Your task to perform on an android device: What's the weather like in Mexico City? Image 0: 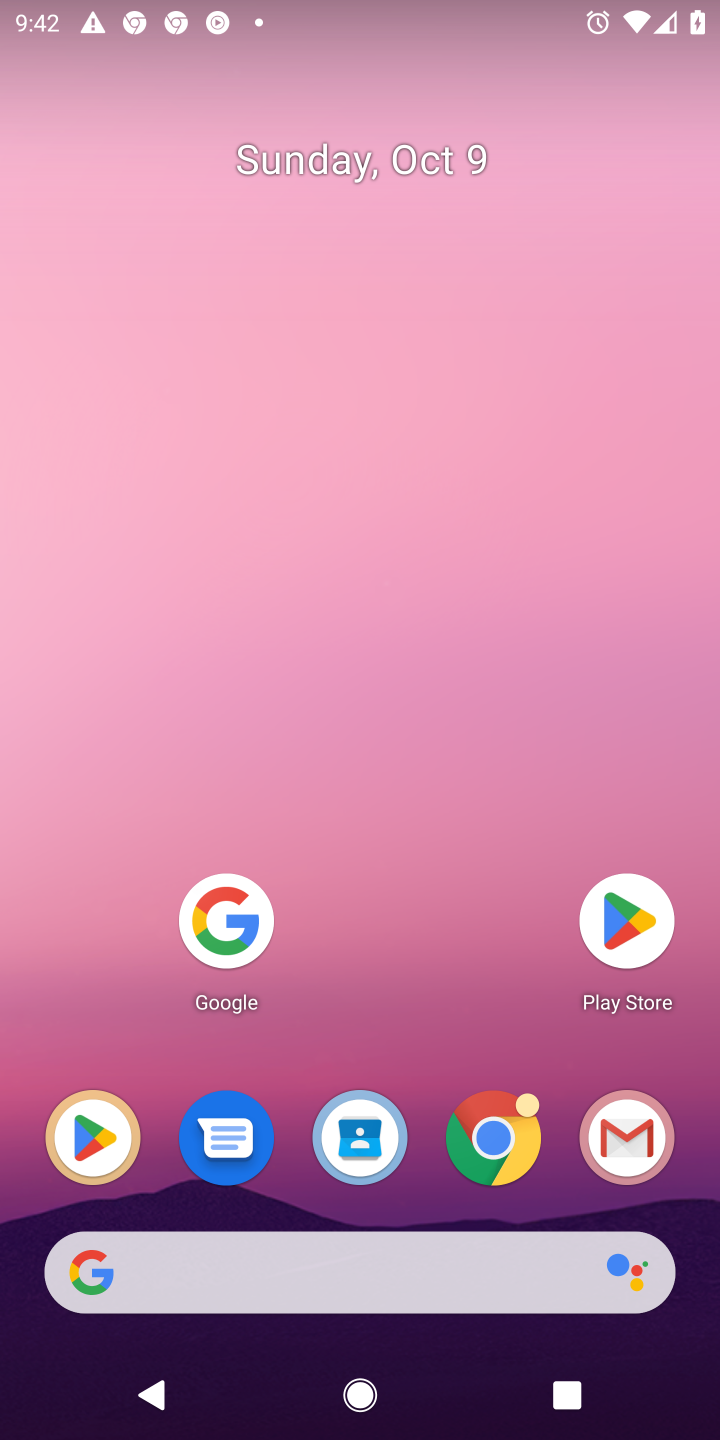
Step 0: click (237, 911)
Your task to perform on an android device: What's the weather like in Mexico City? Image 1: 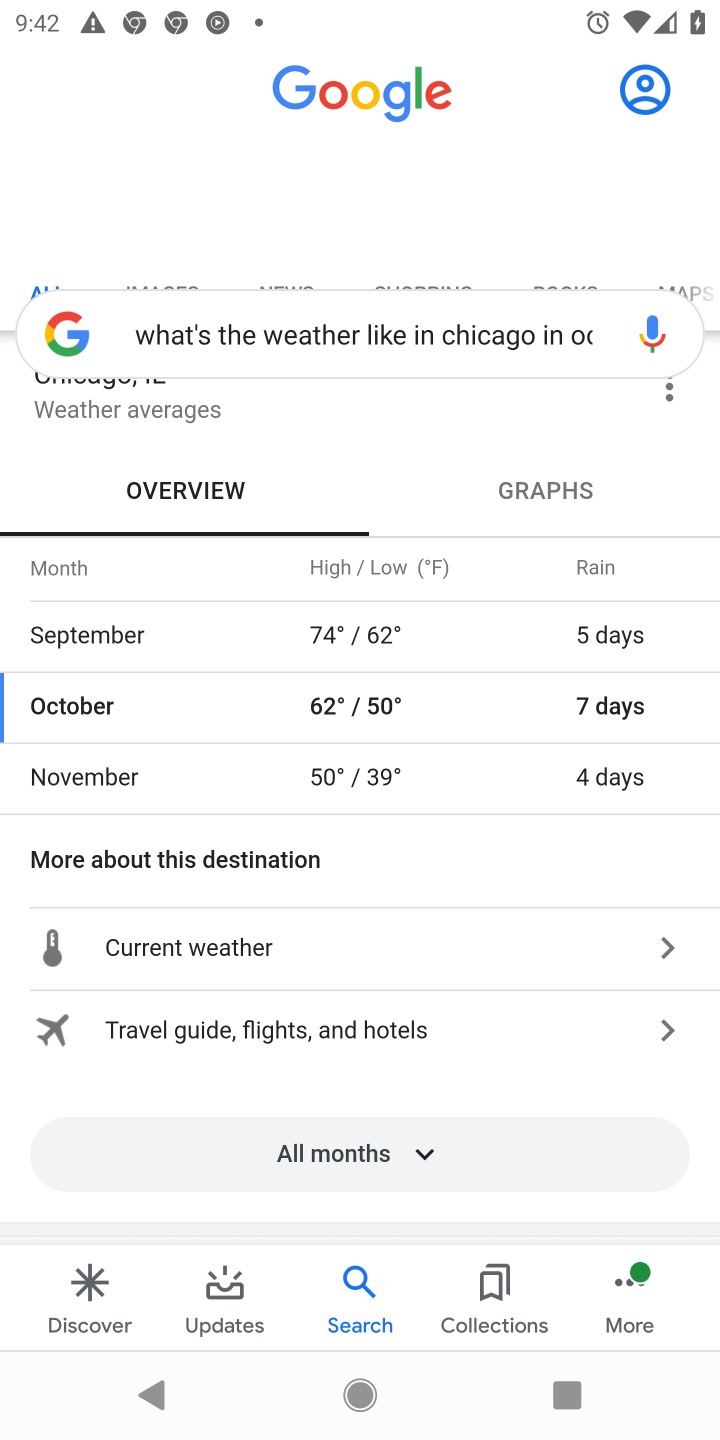
Step 1: click (450, 340)
Your task to perform on an android device: What's the weather like in Mexico City? Image 2: 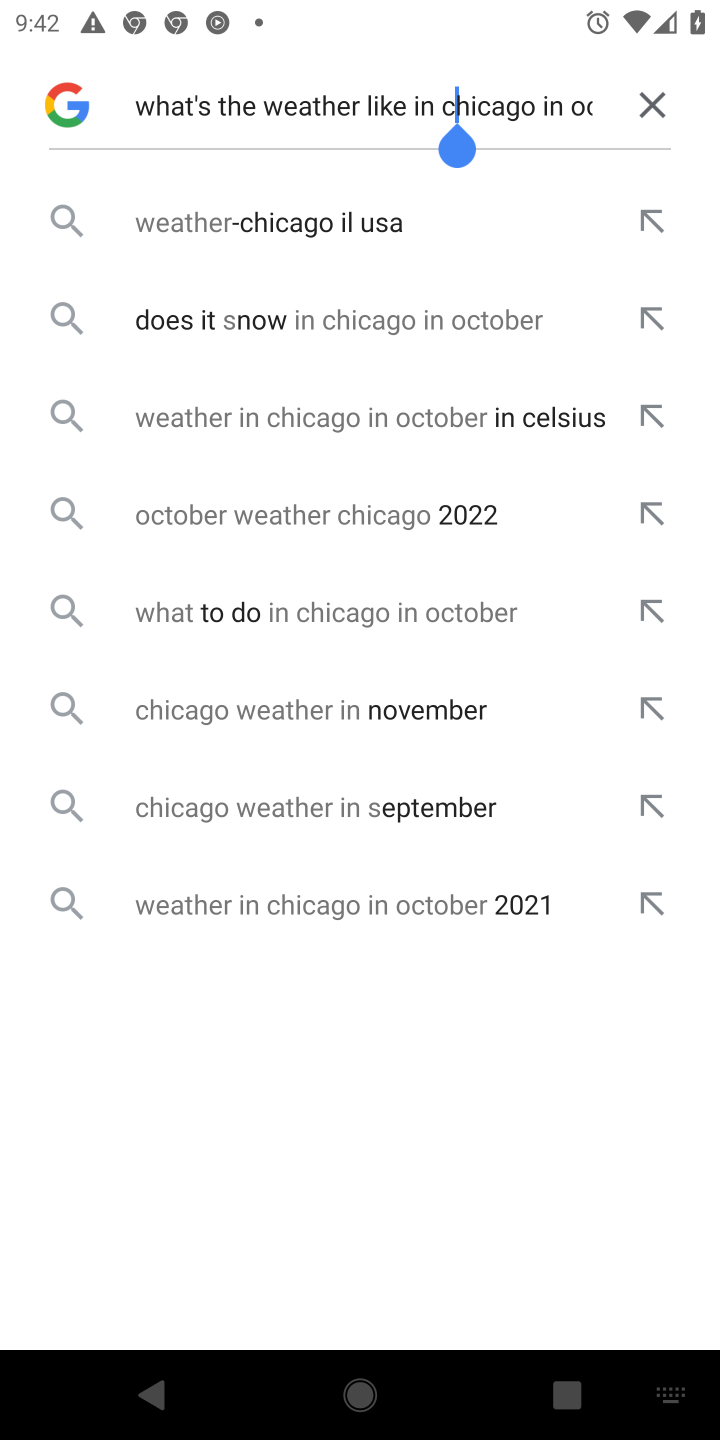
Step 2: click (656, 100)
Your task to perform on an android device: What's the weather like in Mexico City? Image 3: 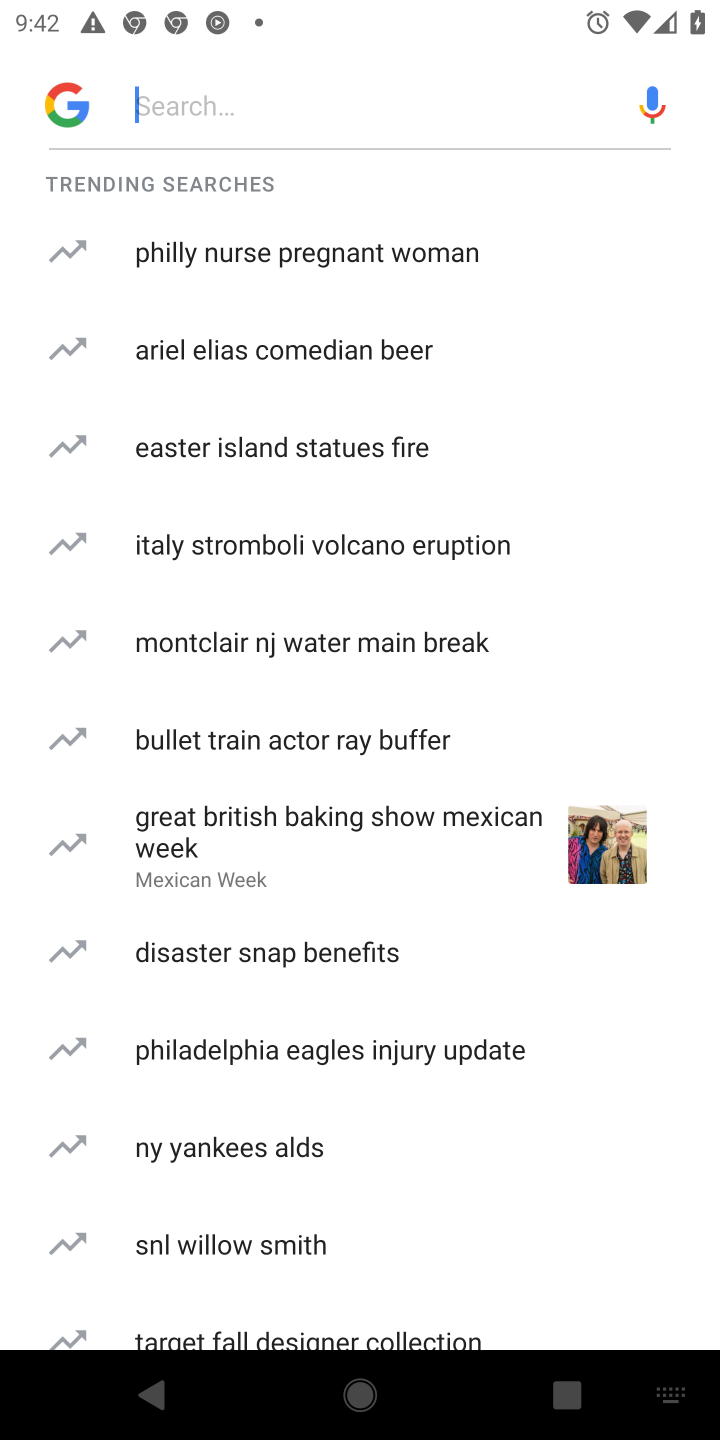
Step 3: drag from (81, 1433) to (672, 310)
Your task to perform on an android device: What's the weather like in Mexico City? Image 4: 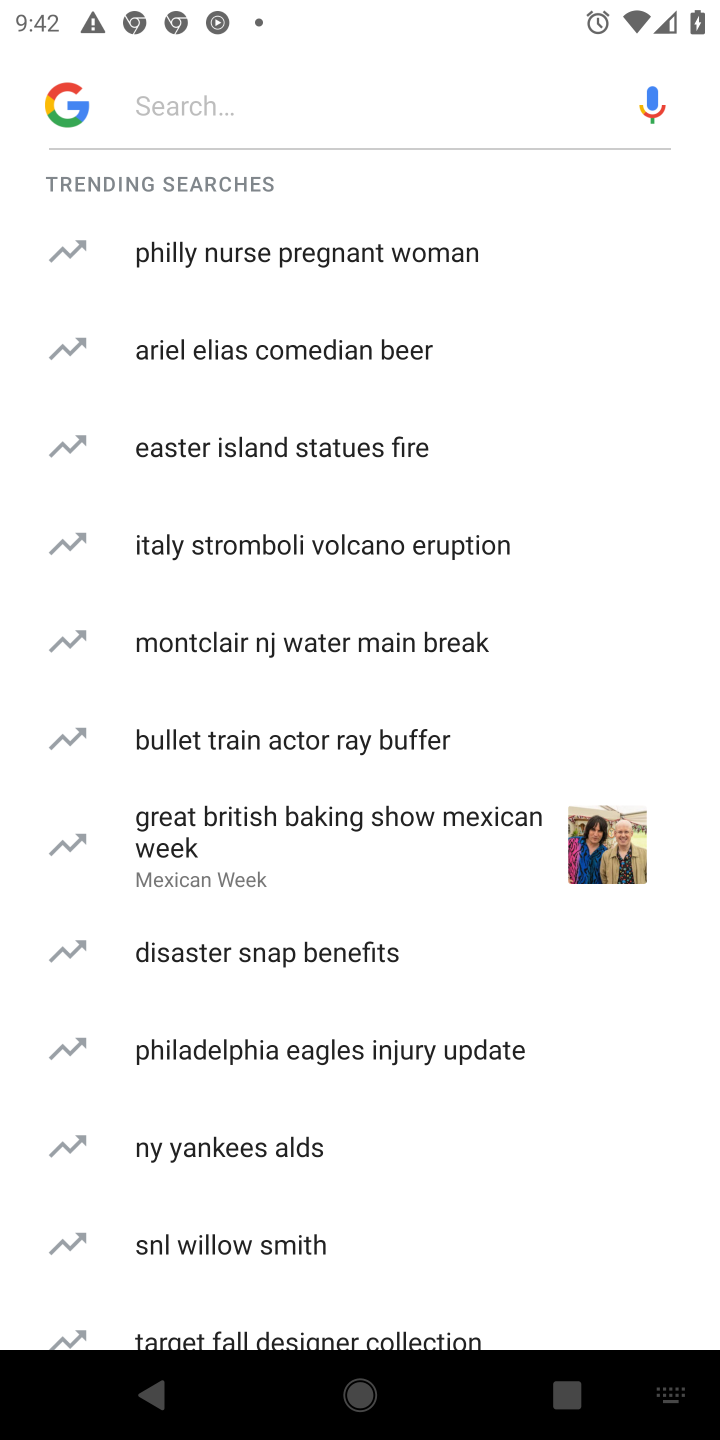
Step 4: click (457, 104)
Your task to perform on an android device: What's the weather like in Mexico City? Image 5: 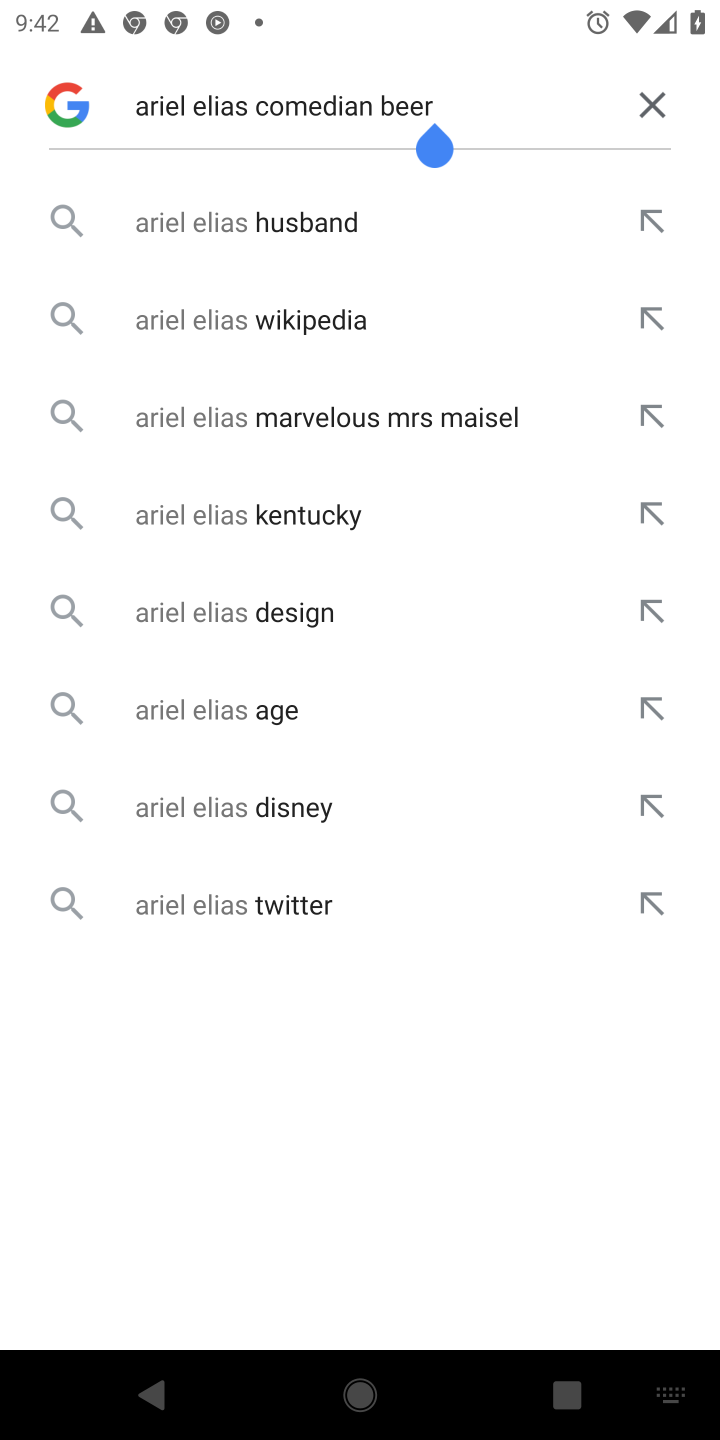
Step 5: click (646, 104)
Your task to perform on an android device: What's the weather like in Mexico City? Image 6: 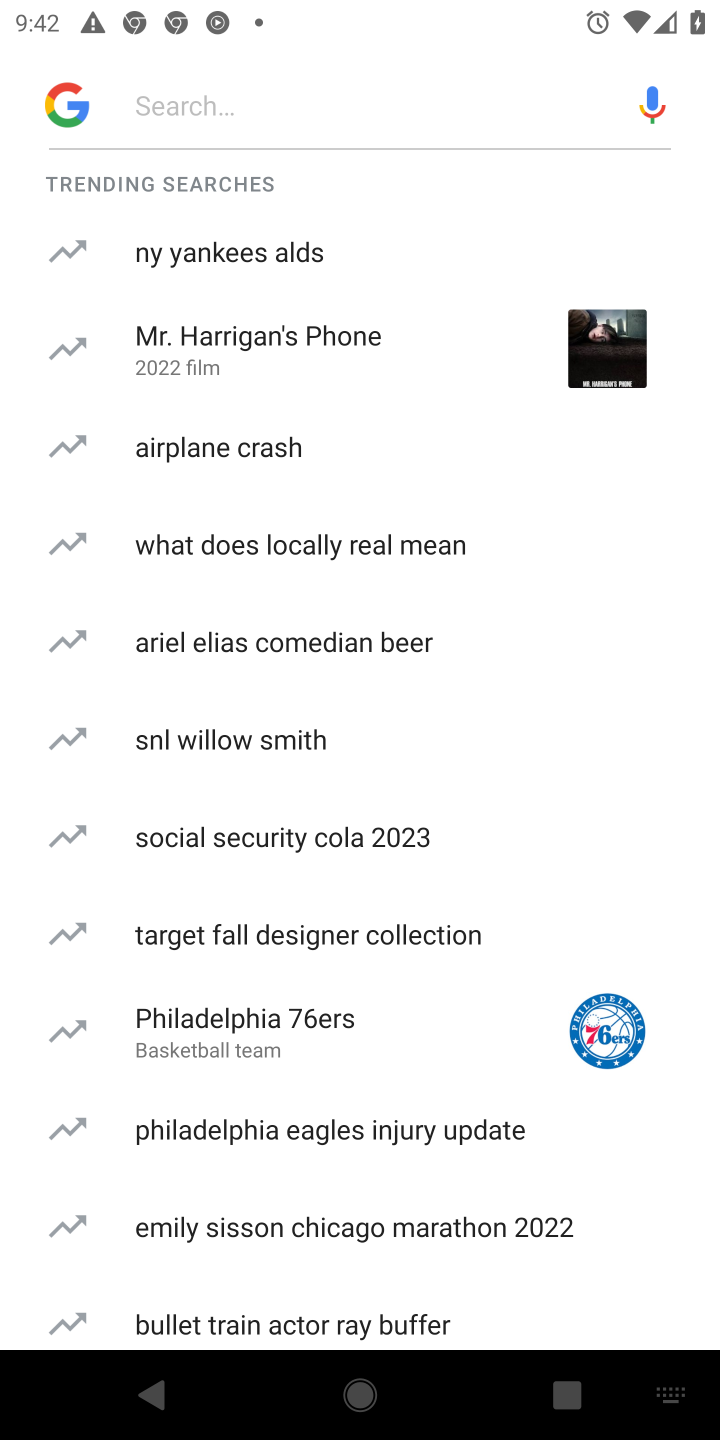
Step 6: click (229, 101)
Your task to perform on an android device: What's the weather like in Mexico City? Image 7: 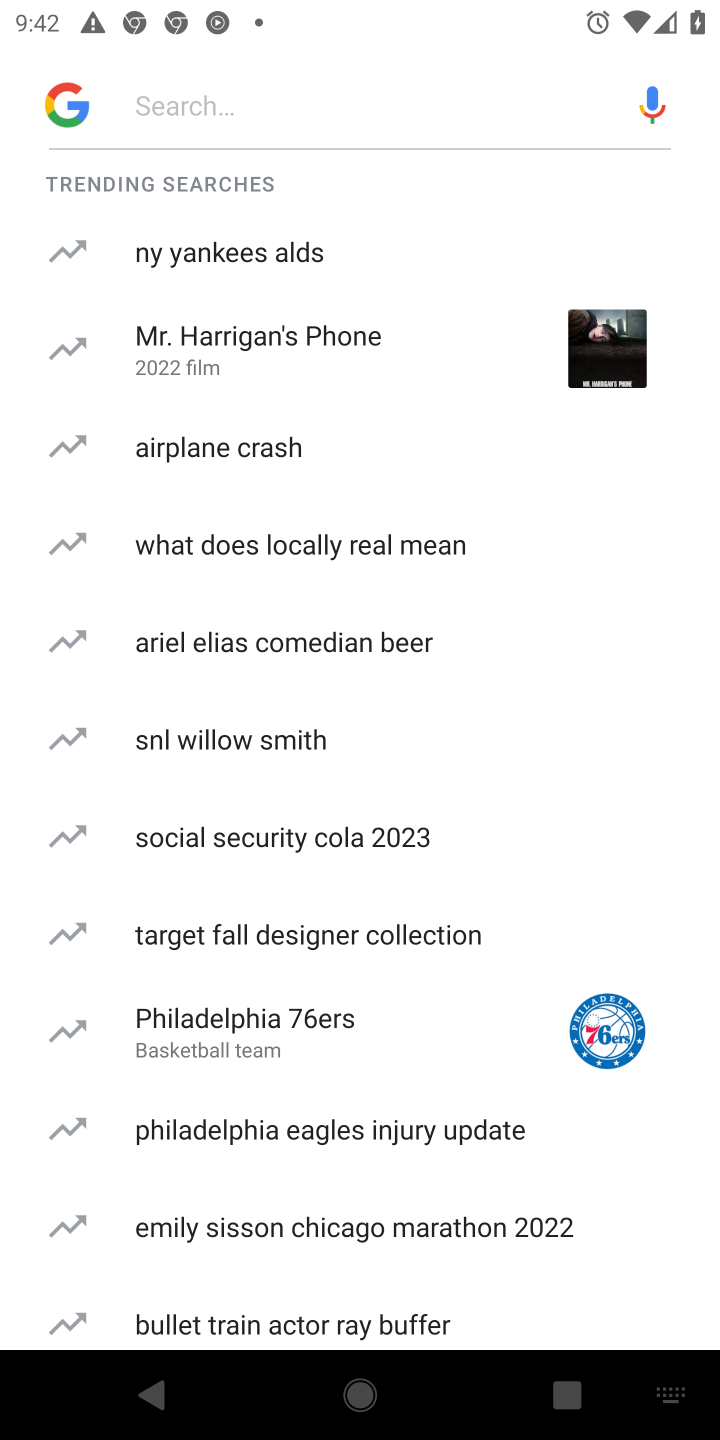
Step 7: type "What's the weather like in Mexico City "
Your task to perform on an android device: What's the weather like in Mexico City? Image 8: 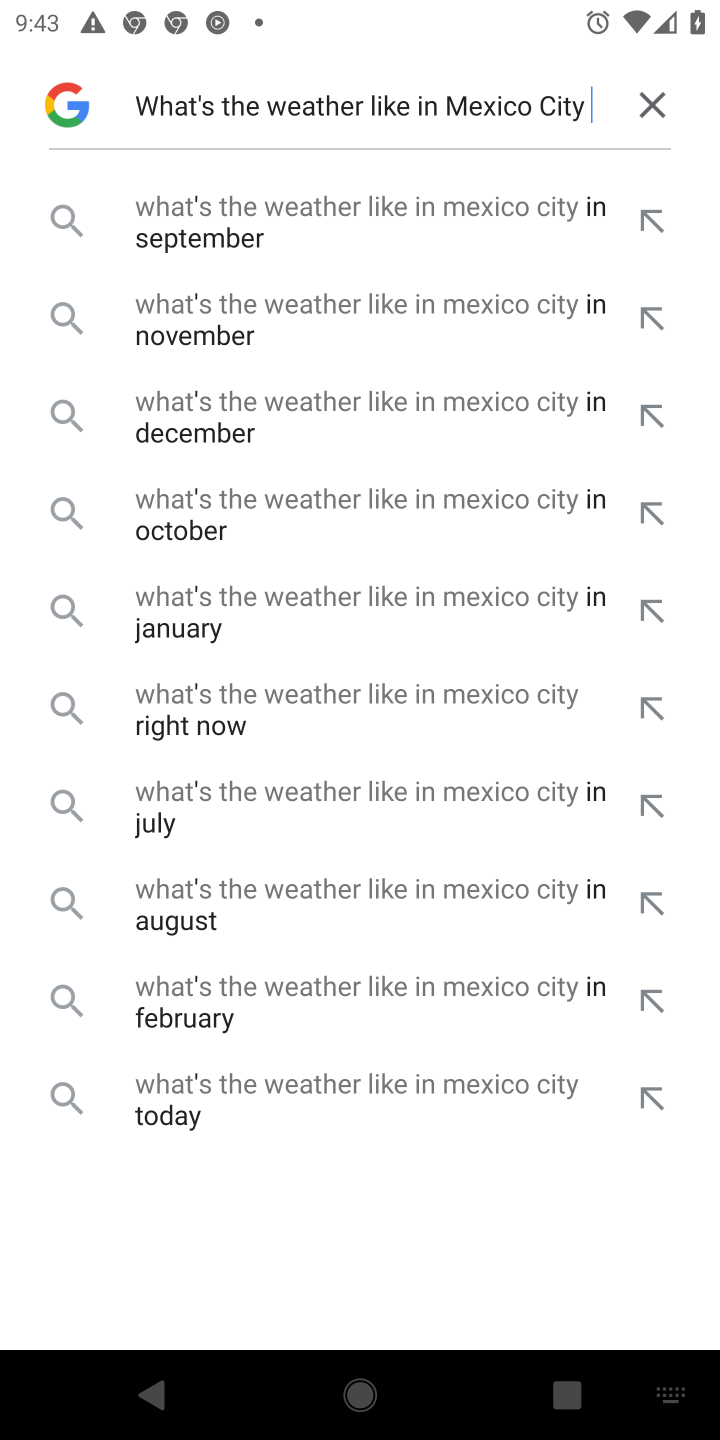
Step 8: click (246, 515)
Your task to perform on an android device: What's the weather like in Mexico City? Image 9: 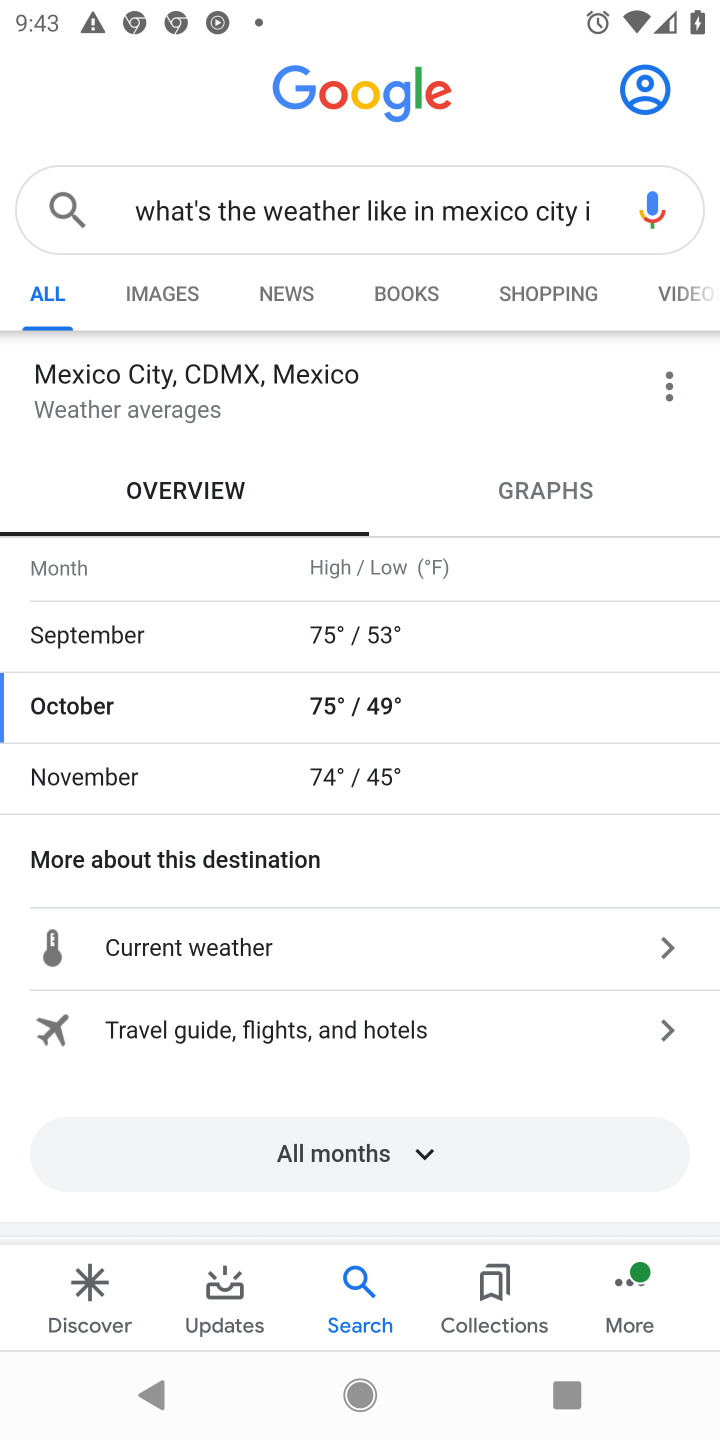
Step 9: task complete